Your task to perform on an android device: When is my next appointment? Image 0: 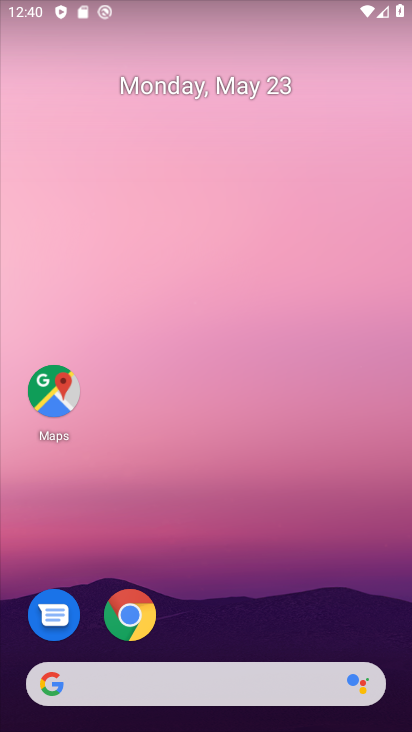
Step 0: drag from (206, 719) to (200, 178)
Your task to perform on an android device: When is my next appointment? Image 1: 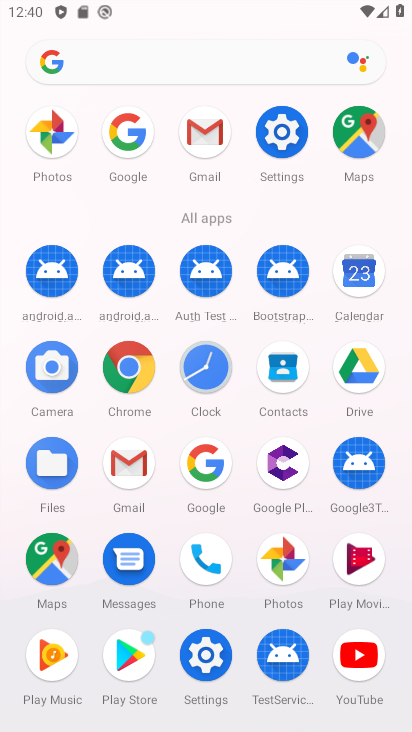
Step 1: click (363, 276)
Your task to perform on an android device: When is my next appointment? Image 2: 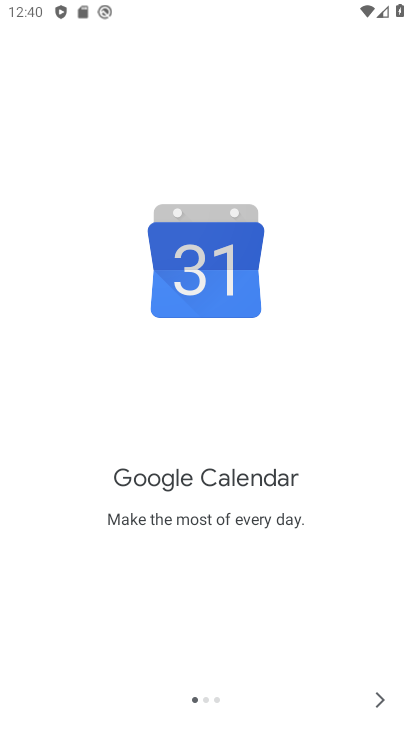
Step 2: click (376, 695)
Your task to perform on an android device: When is my next appointment? Image 3: 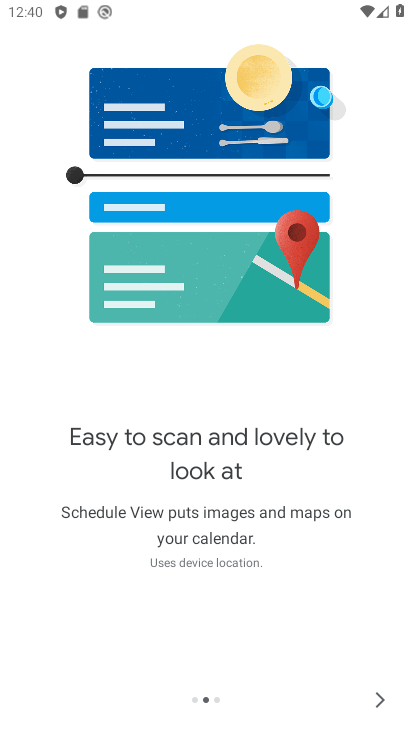
Step 3: click (376, 696)
Your task to perform on an android device: When is my next appointment? Image 4: 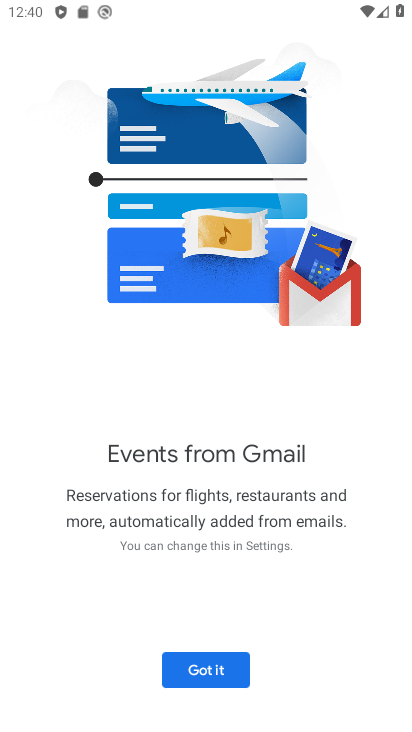
Step 4: click (208, 664)
Your task to perform on an android device: When is my next appointment? Image 5: 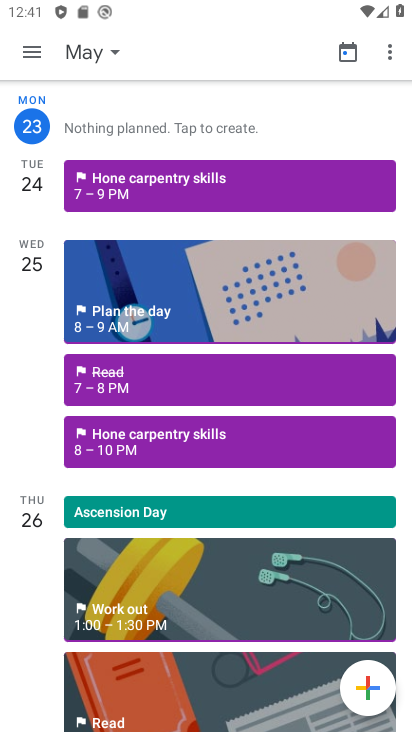
Step 5: click (115, 44)
Your task to perform on an android device: When is my next appointment? Image 6: 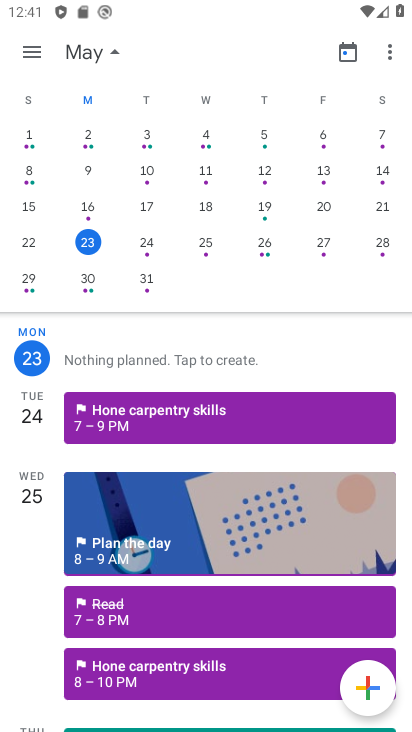
Step 6: click (146, 247)
Your task to perform on an android device: When is my next appointment? Image 7: 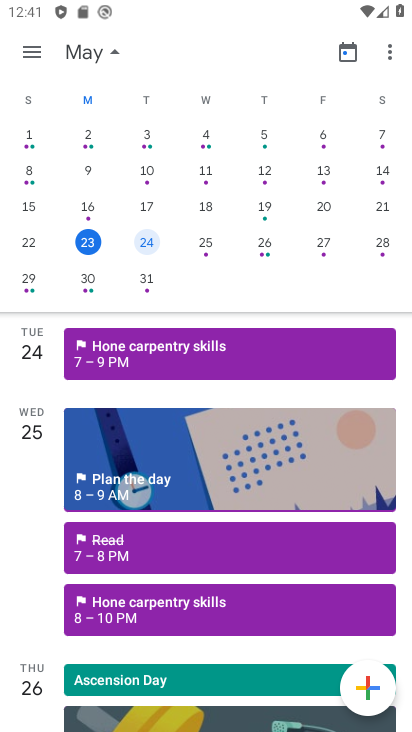
Step 7: click (115, 48)
Your task to perform on an android device: When is my next appointment? Image 8: 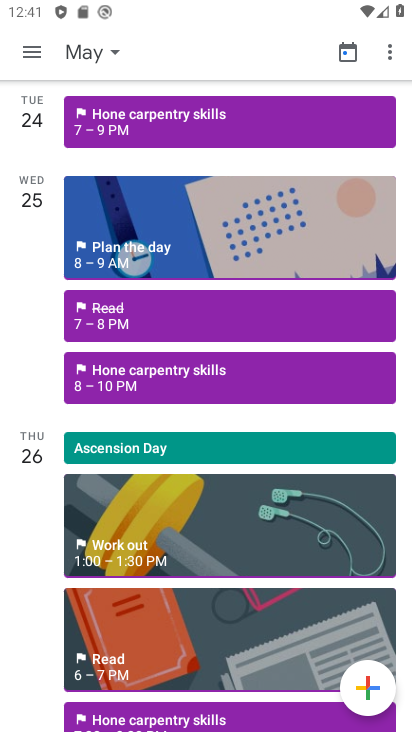
Step 8: task complete